Your task to perform on an android device: turn smart compose on in the gmail app Image 0: 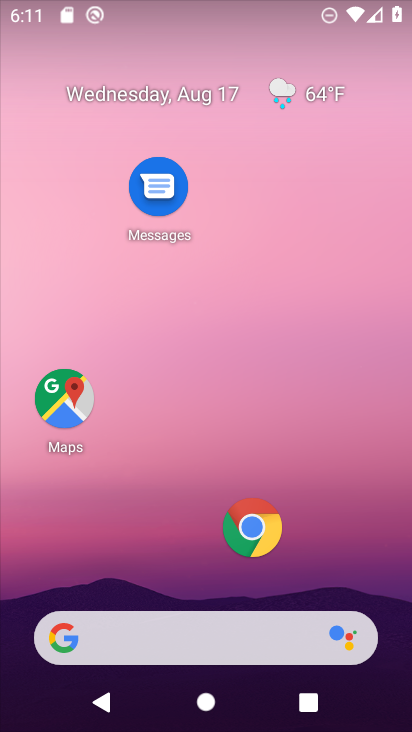
Step 0: drag from (186, 608) to (209, 281)
Your task to perform on an android device: turn smart compose on in the gmail app Image 1: 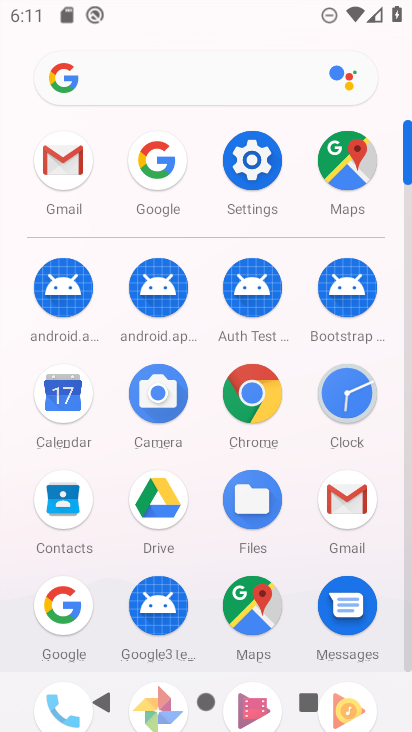
Step 1: click (353, 495)
Your task to perform on an android device: turn smart compose on in the gmail app Image 2: 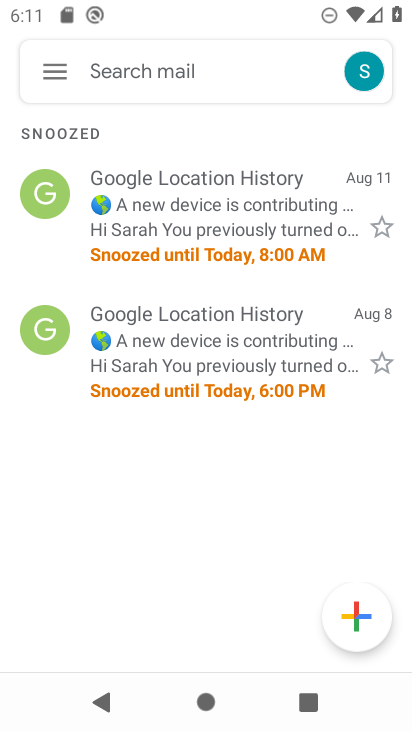
Step 2: click (57, 78)
Your task to perform on an android device: turn smart compose on in the gmail app Image 3: 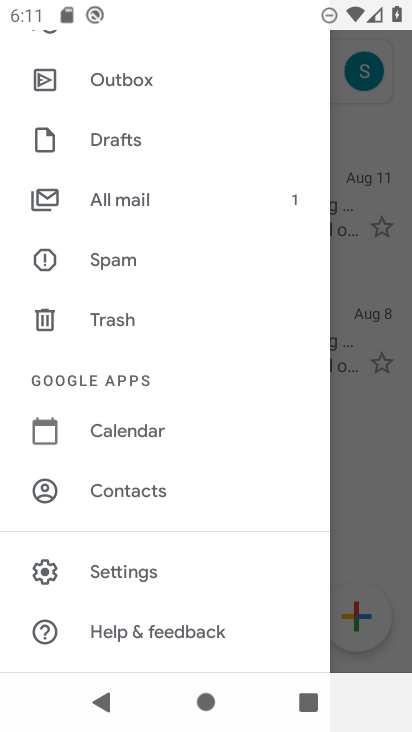
Step 3: click (124, 581)
Your task to perform on an android device: turn smart compose on in the gmail app Image 4: 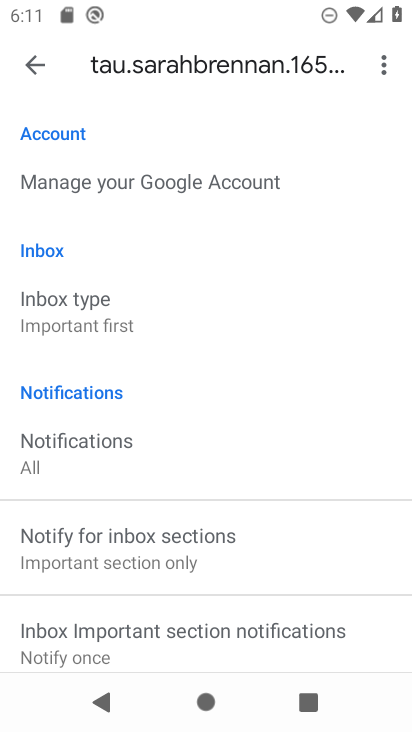
Step 4: task complete